Your task to perform on an android device: open app "Pinterest" Image 0: 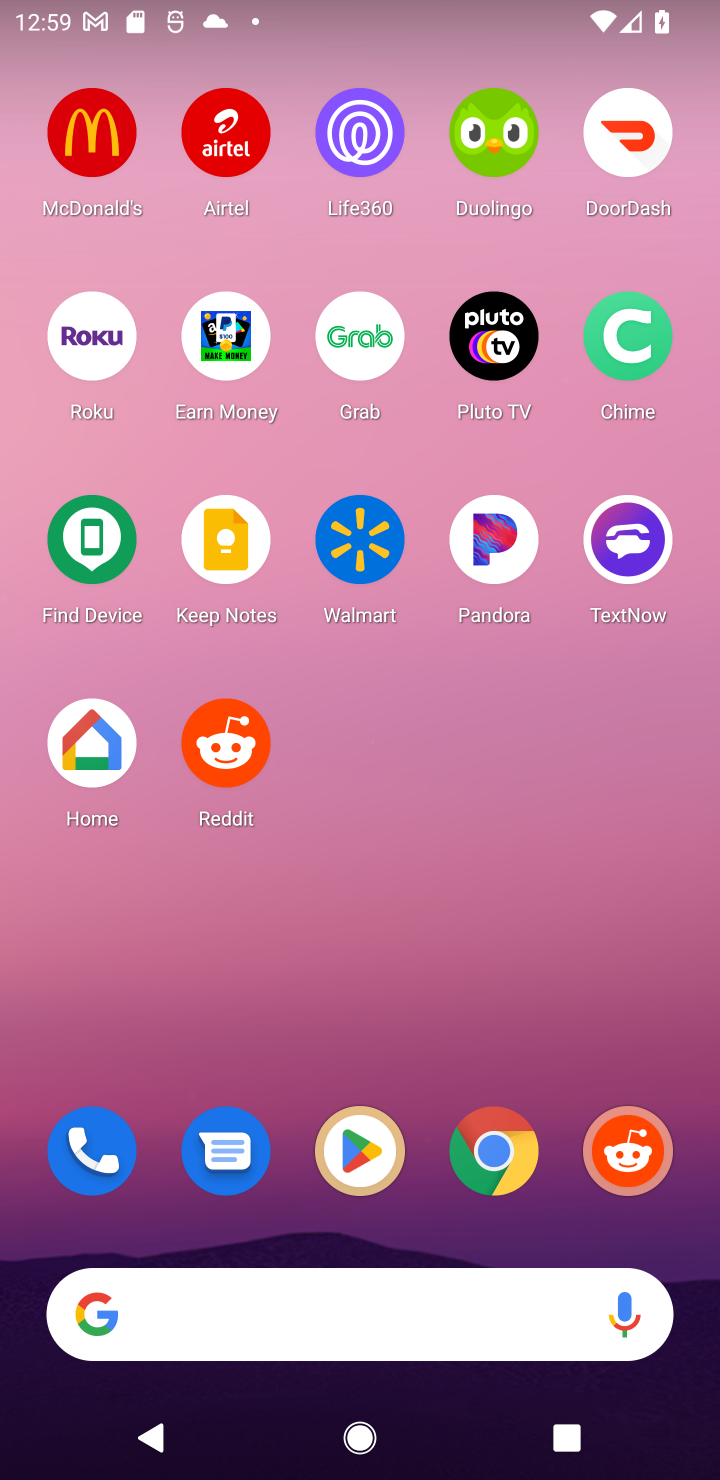
Step 0: click (342, 1148)
Your task to perform on an android device: open app "Pinterest" Image 1: 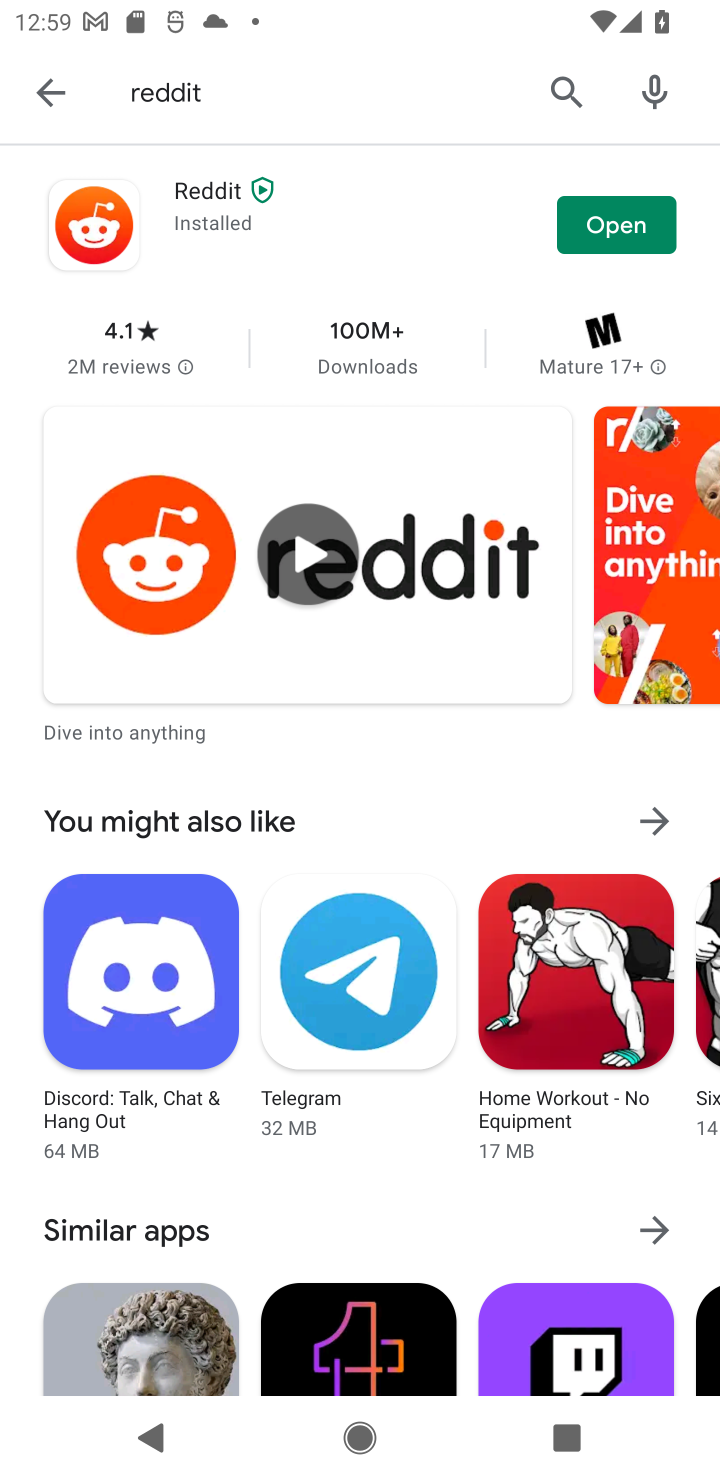
Step 1: click (49, 98)
Your task to perform on an android device: open app "Pinterest" Image 2: 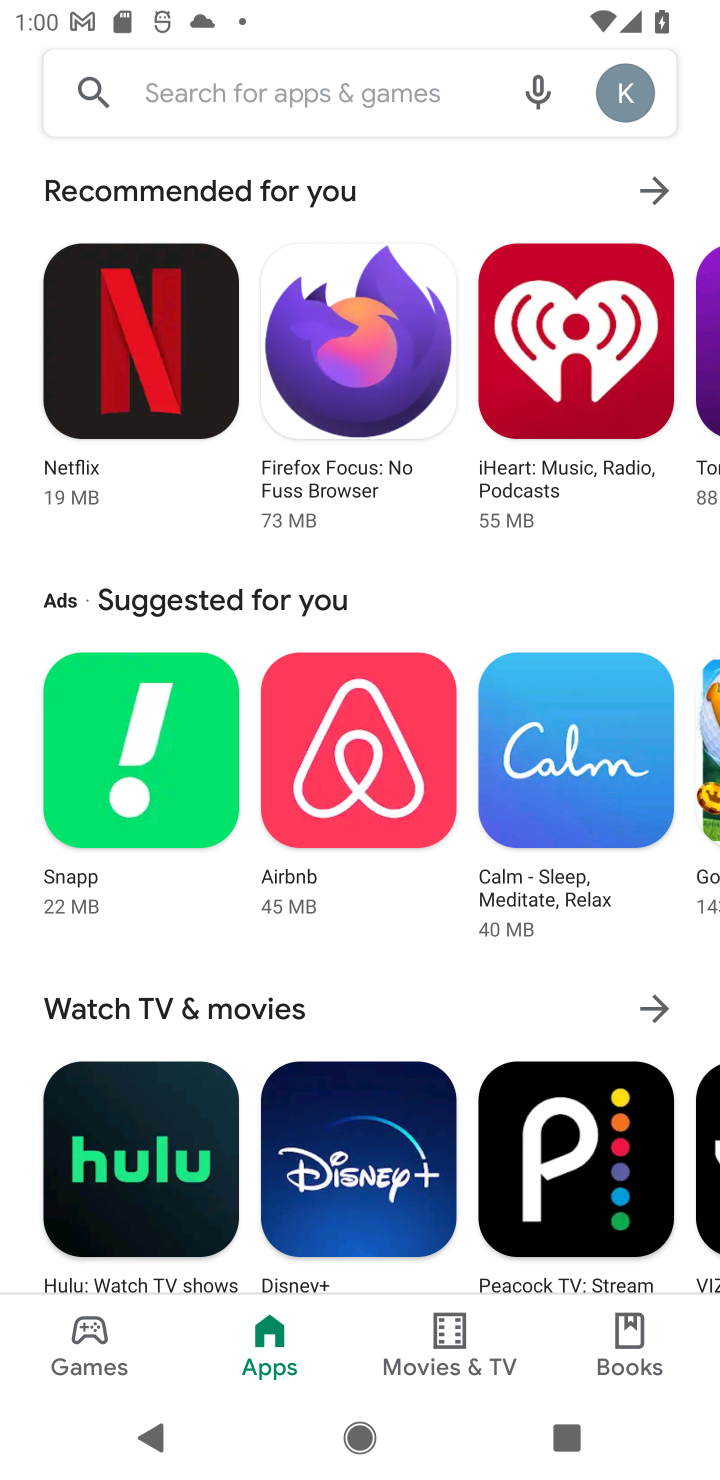
Step 2: click (207, 91)
Your task to perform on an android device: open app "Pinterest" Image 3: 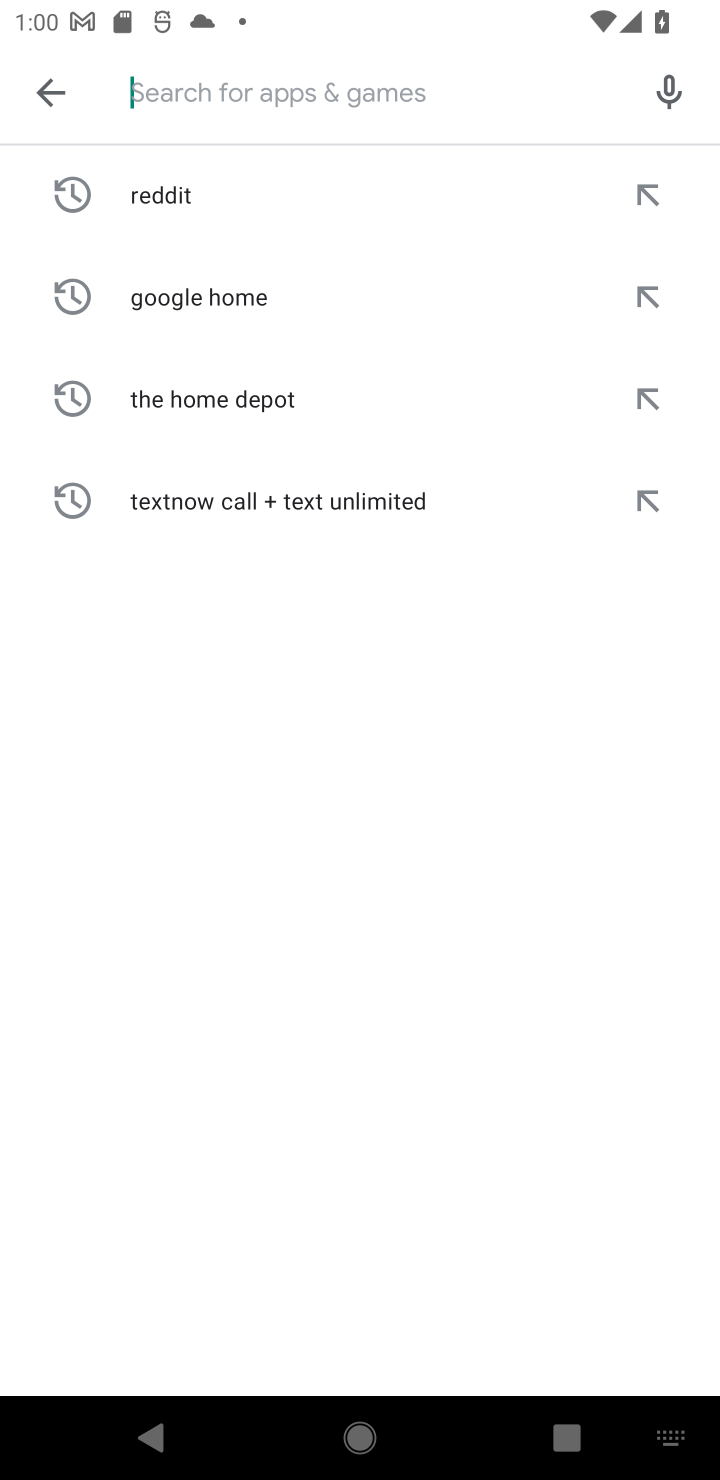
Step 3: type "Pinterest"
Your task to perform on an android device: open app "Pinterest" Image 4: 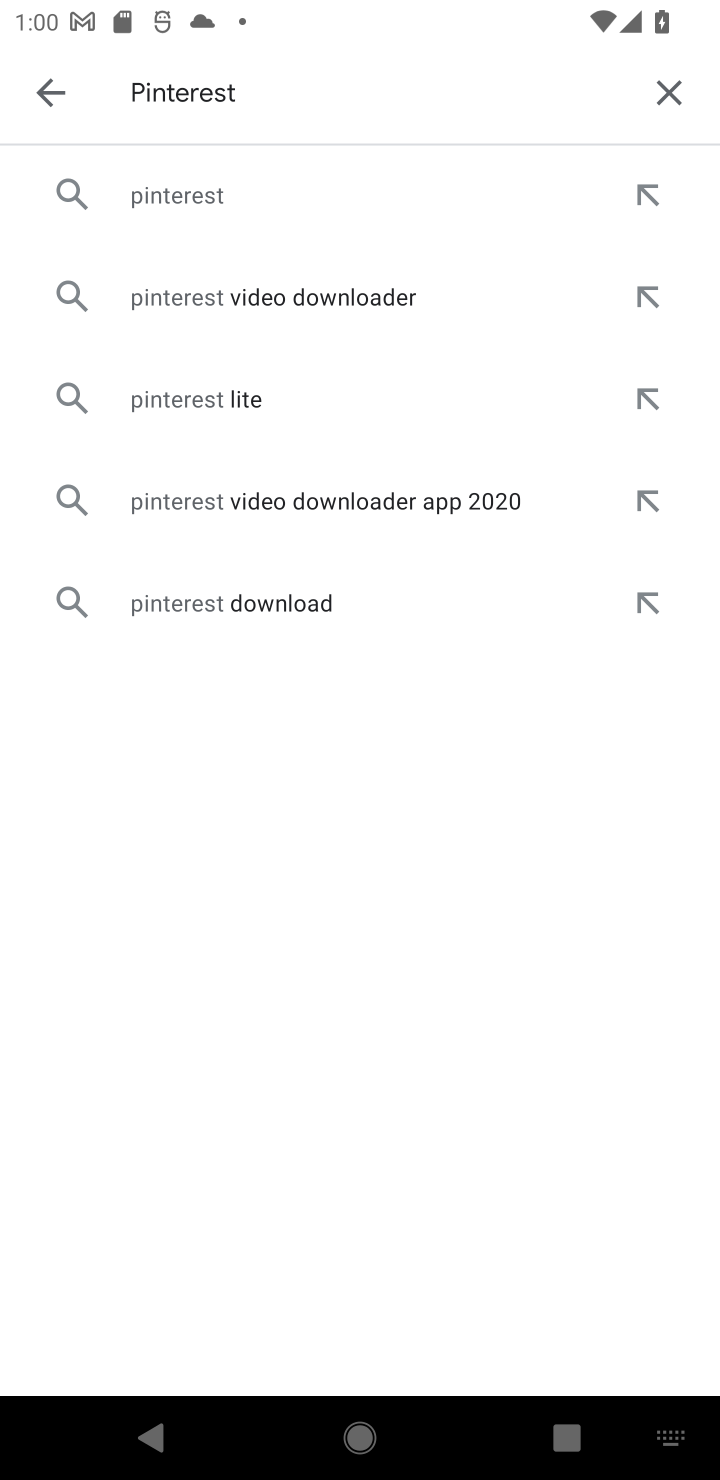
Step 4: click (215, 187)
Your task to perform on an android device: open app "Pinterest" Image 5: 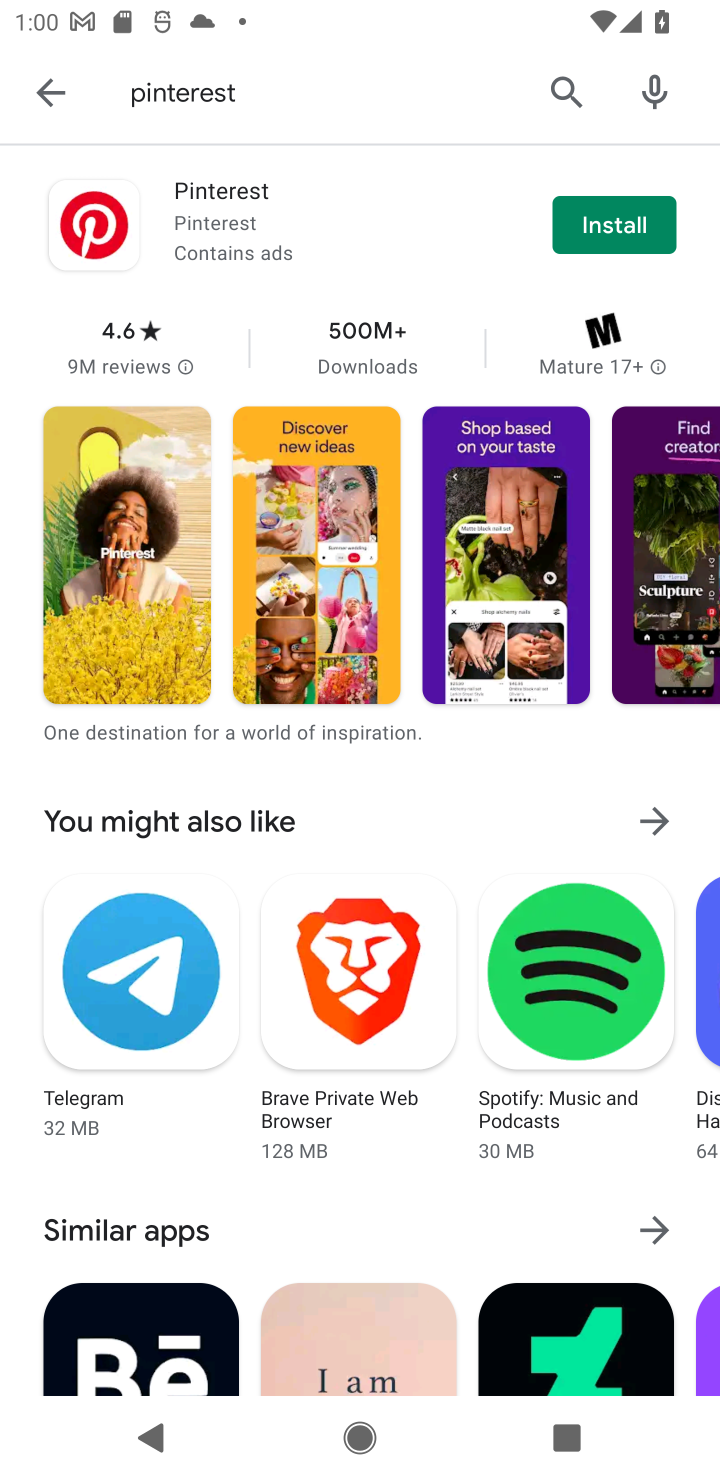
Step 5: click (594, 229)
Your task to perform on an android device: open app "Pinterest" Image 6: 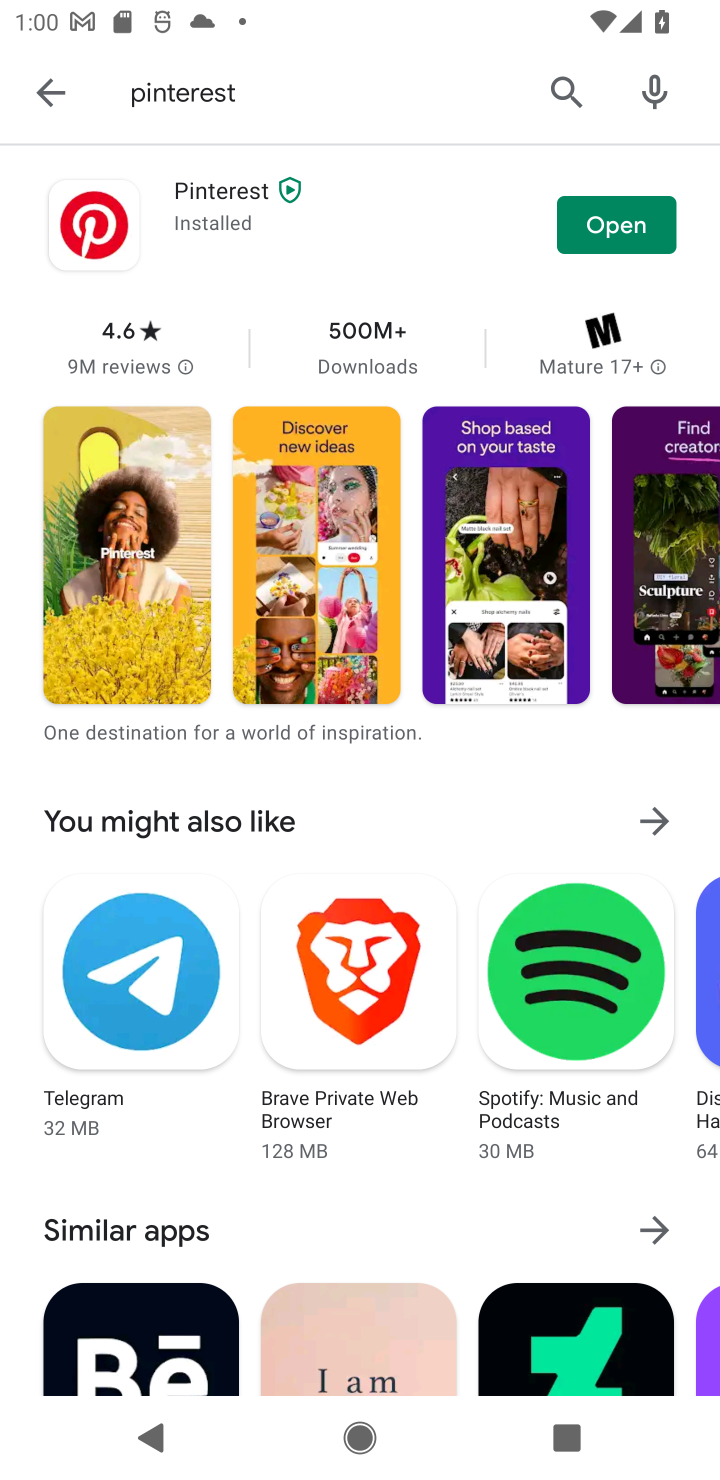
Step 6: click (589, 224)
Your task to perform on an android device: open app "Pinterest" Image 7: 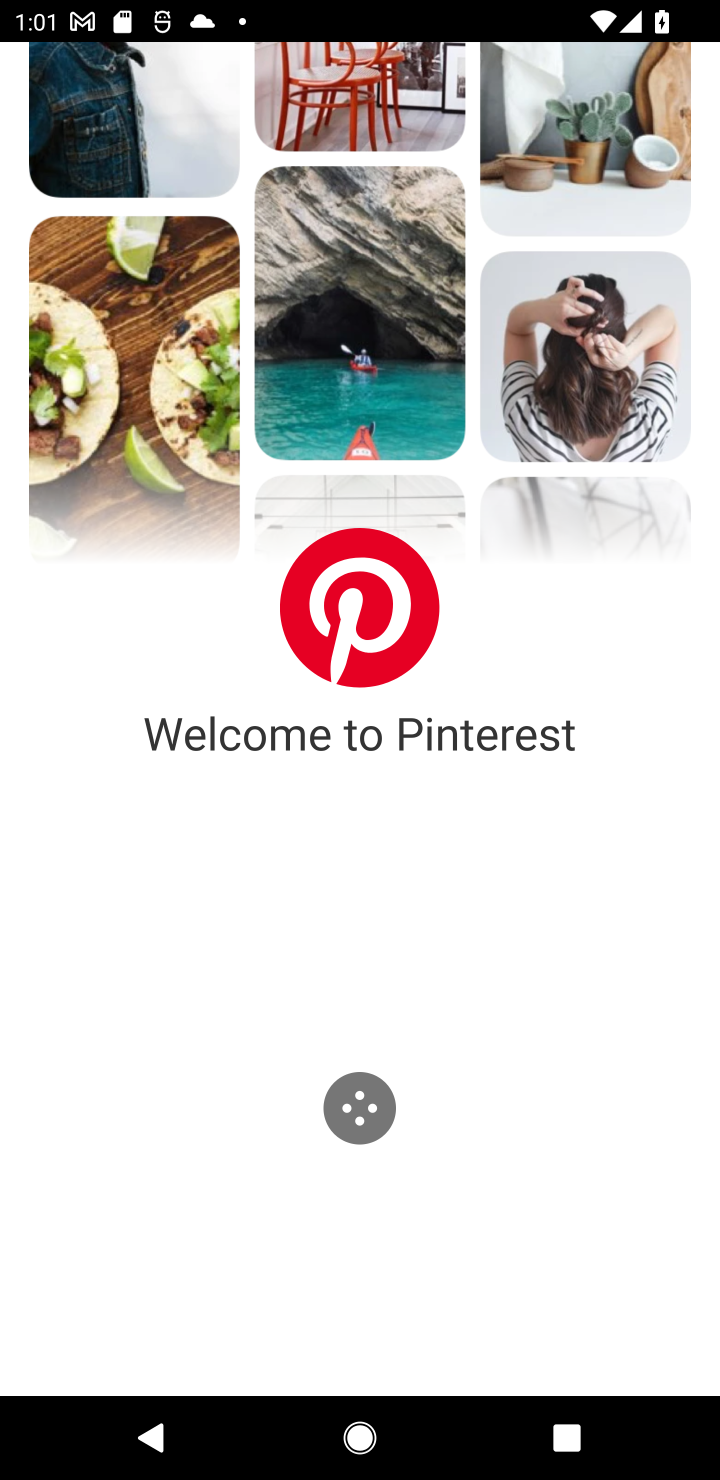
Step 7: task complete